Your task to perform on an android device: install app "PlayWell" Image 0: 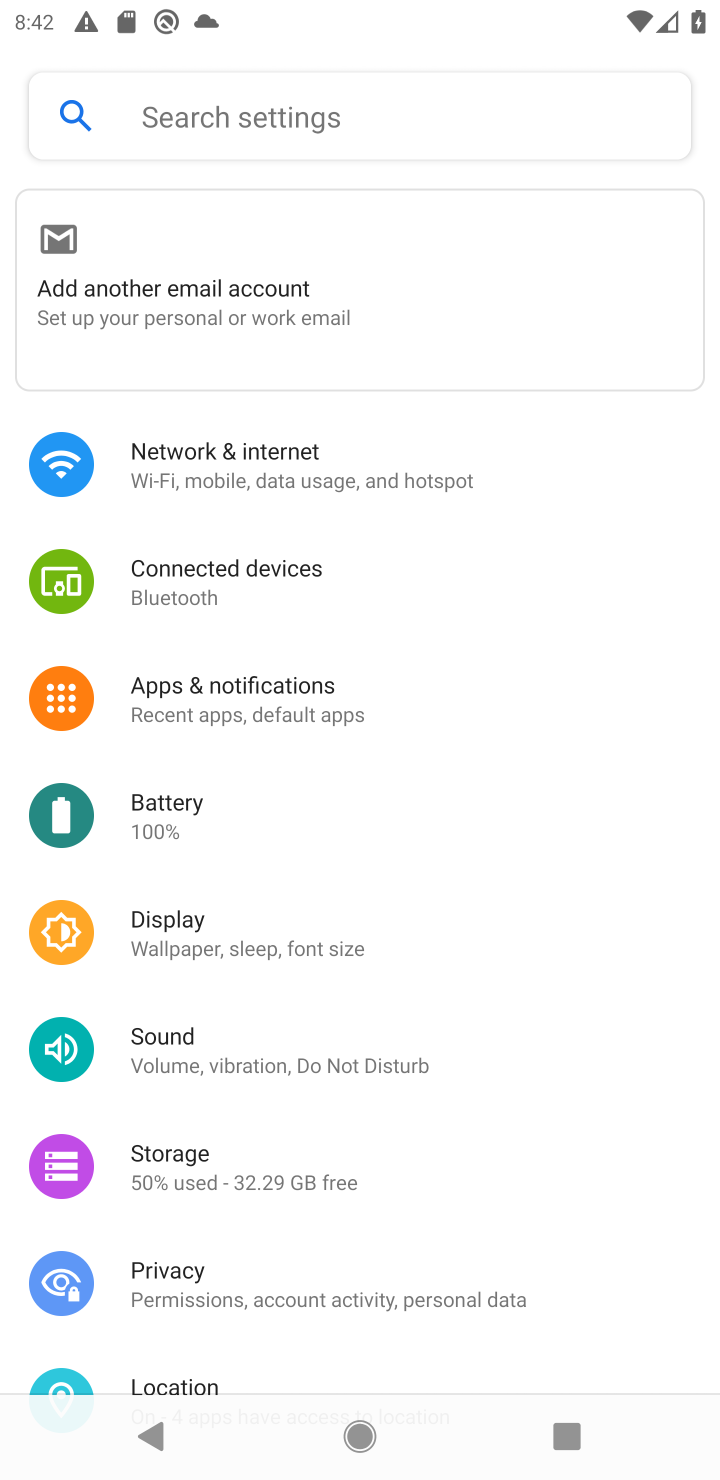
Step 0: press home button
Your task to perform on an android device: install app "PlayWell" Image 1: 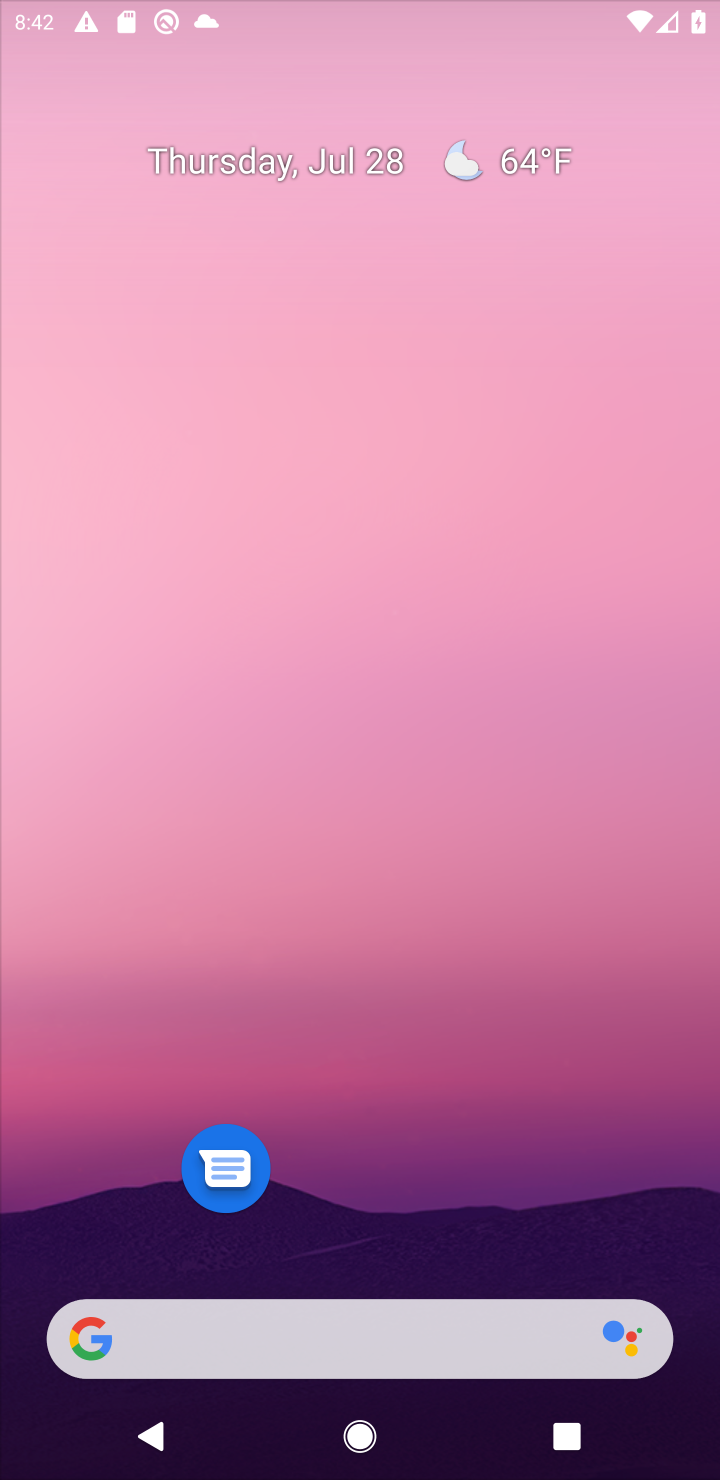
Step 1: drag from (398, 1124) to (715, 386)
Your task to perform on an android device: install app "PlayWell" Image 2: 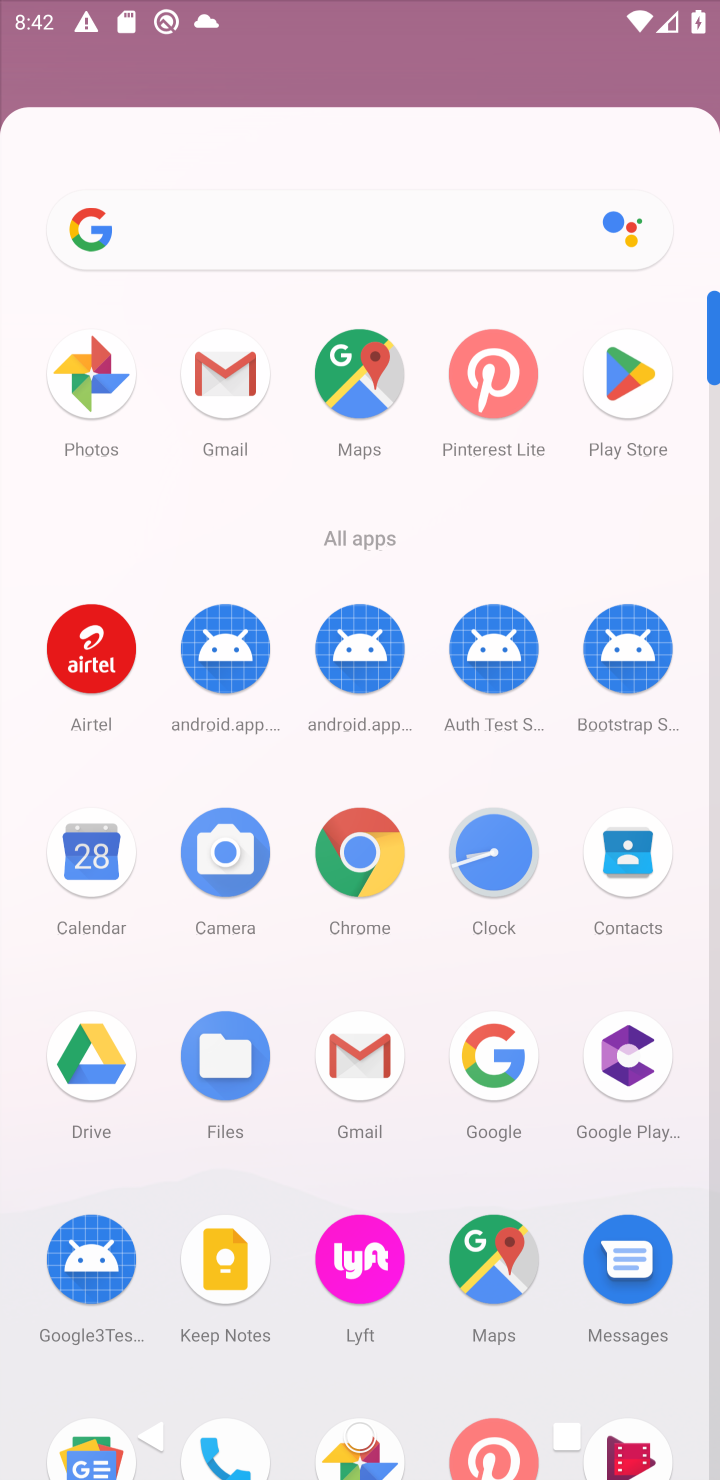
Step 2: click (632, 363)
Your task to perform on an android device: install app "PlayWell" Image 3: 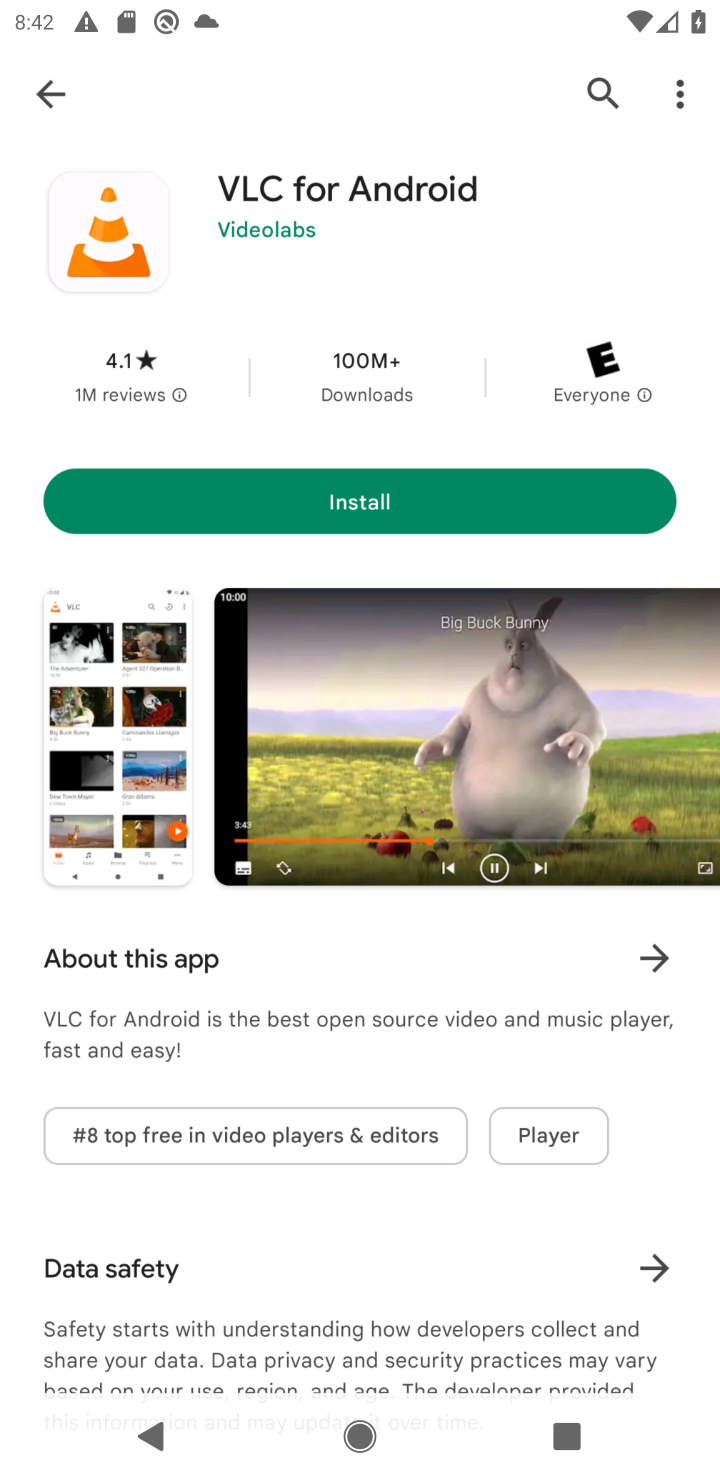
Step 3: click (644, 275)
Your task to perform on an android device: install app "PlayWell" Image 4: 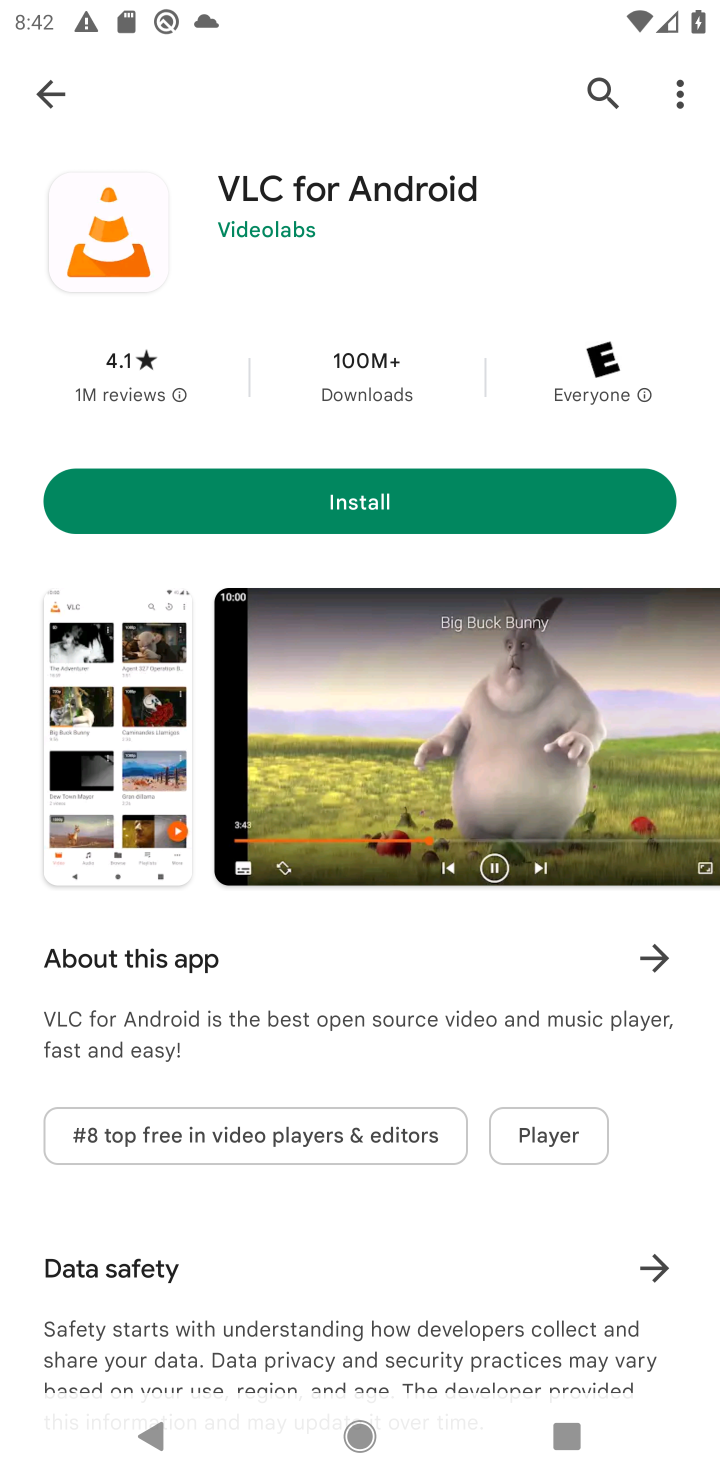
Step 4: click (597, 87)
Your task to perform on an android device: install app "PlayWell" Image 5: 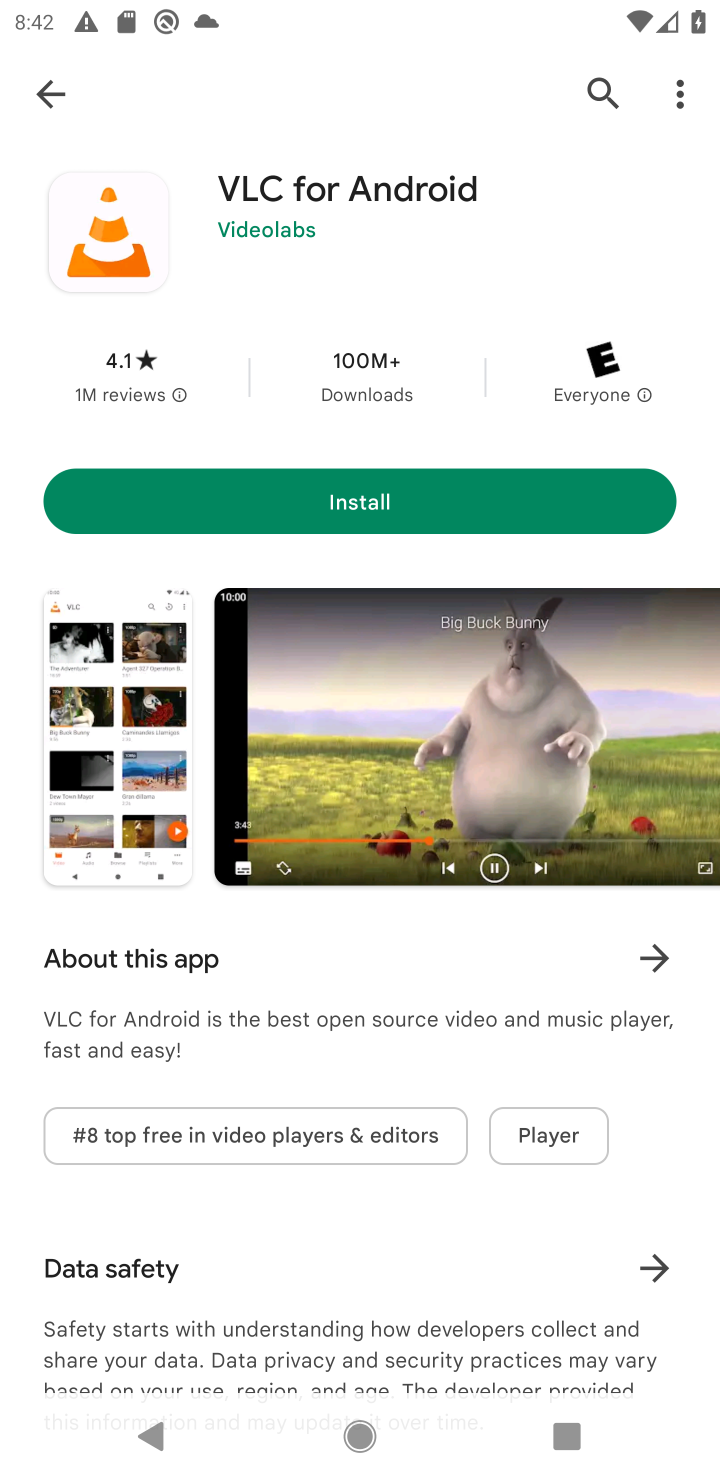
Step 5: click (588, 85)
Your task to perform on an android device: install app "PlayWell" Image 6: 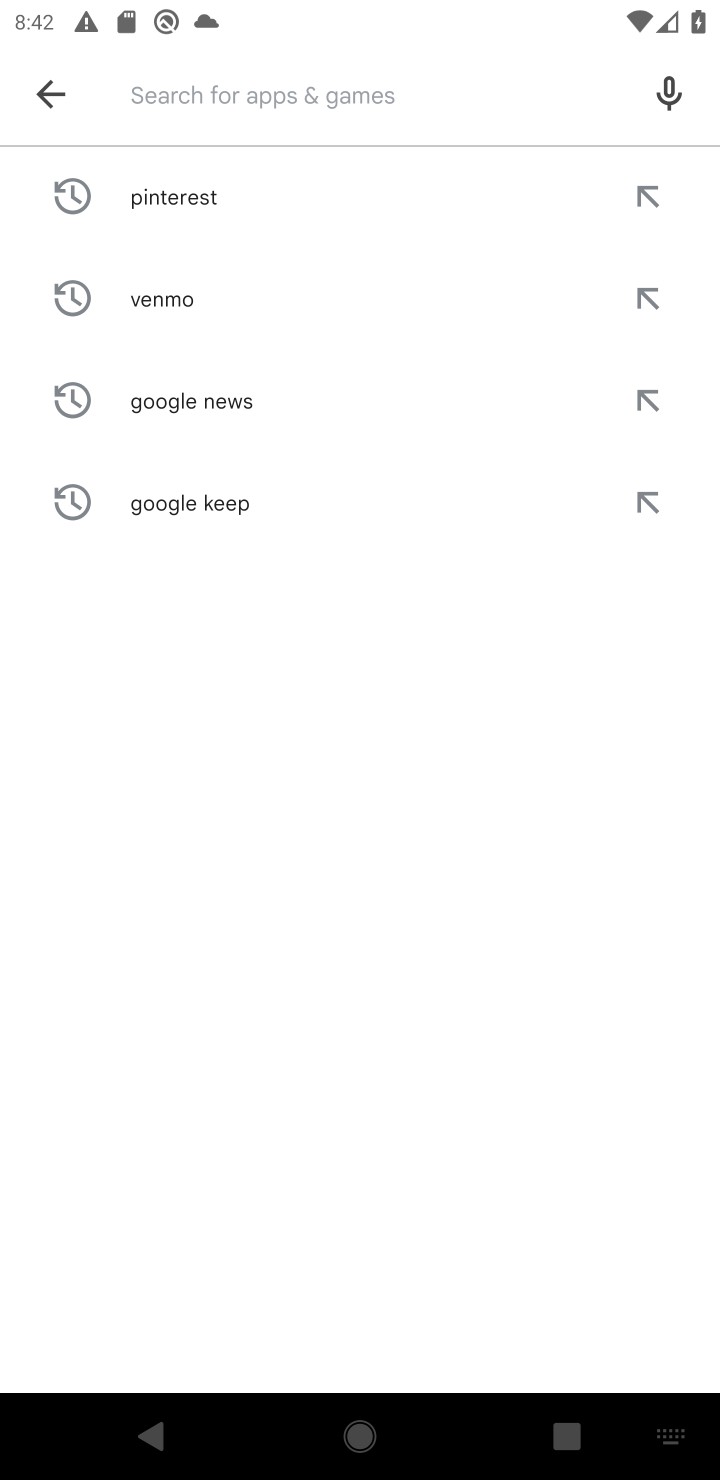
Step 6: type "playwell"
Your task to perform on an android device: install app "PlayWell" Image 7: 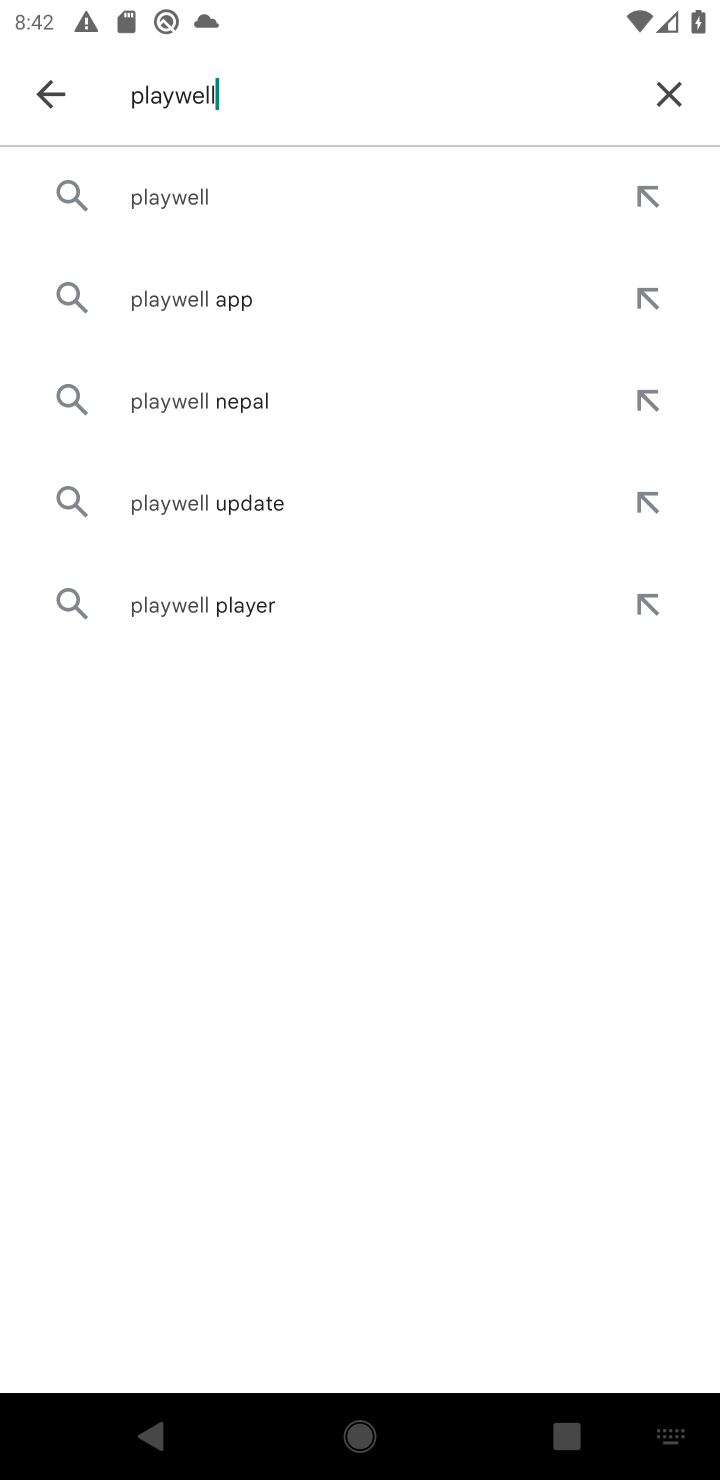
Step 7: click (191, 192)
Your task to perform on an android device: install app "PlayWell" Image 8: 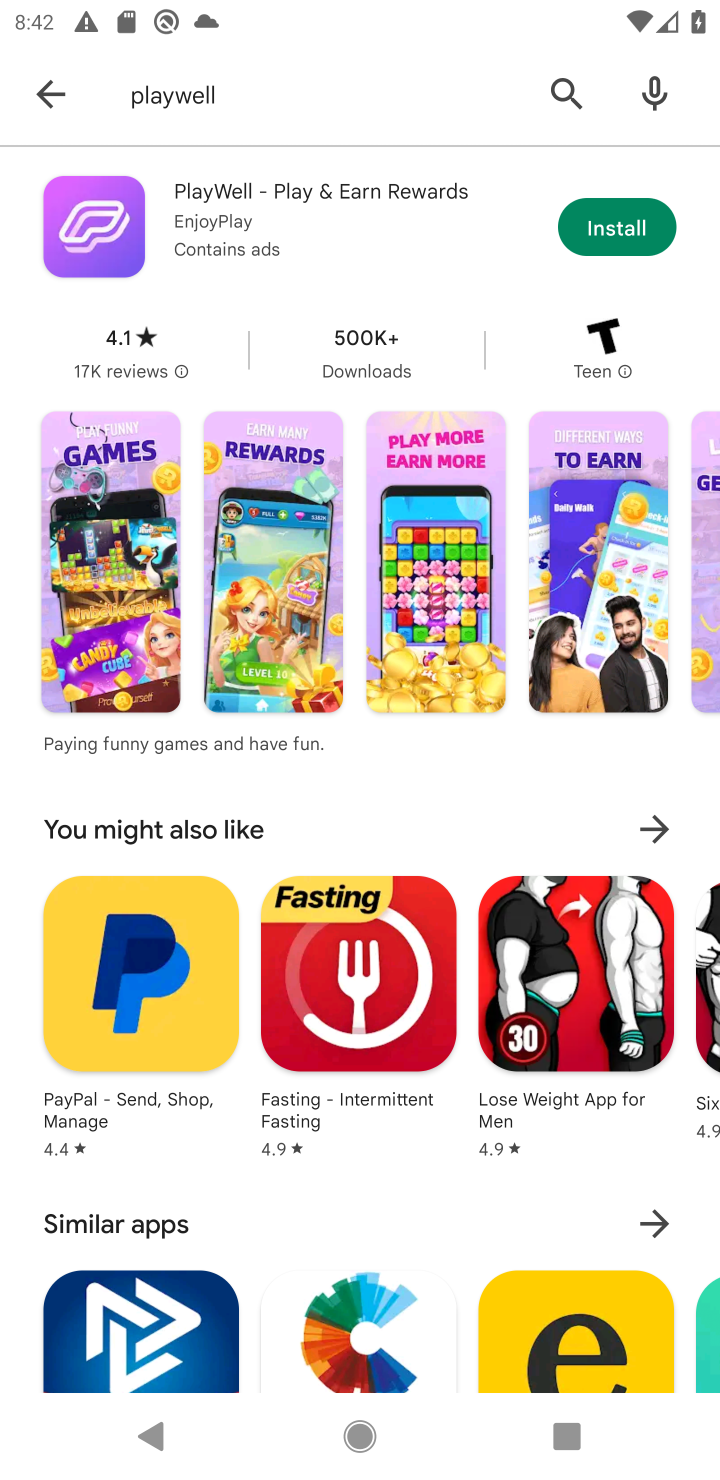
Step 8: click (655, 236)
Your task to perform on an android device: install app "PlayWell" Image 9: 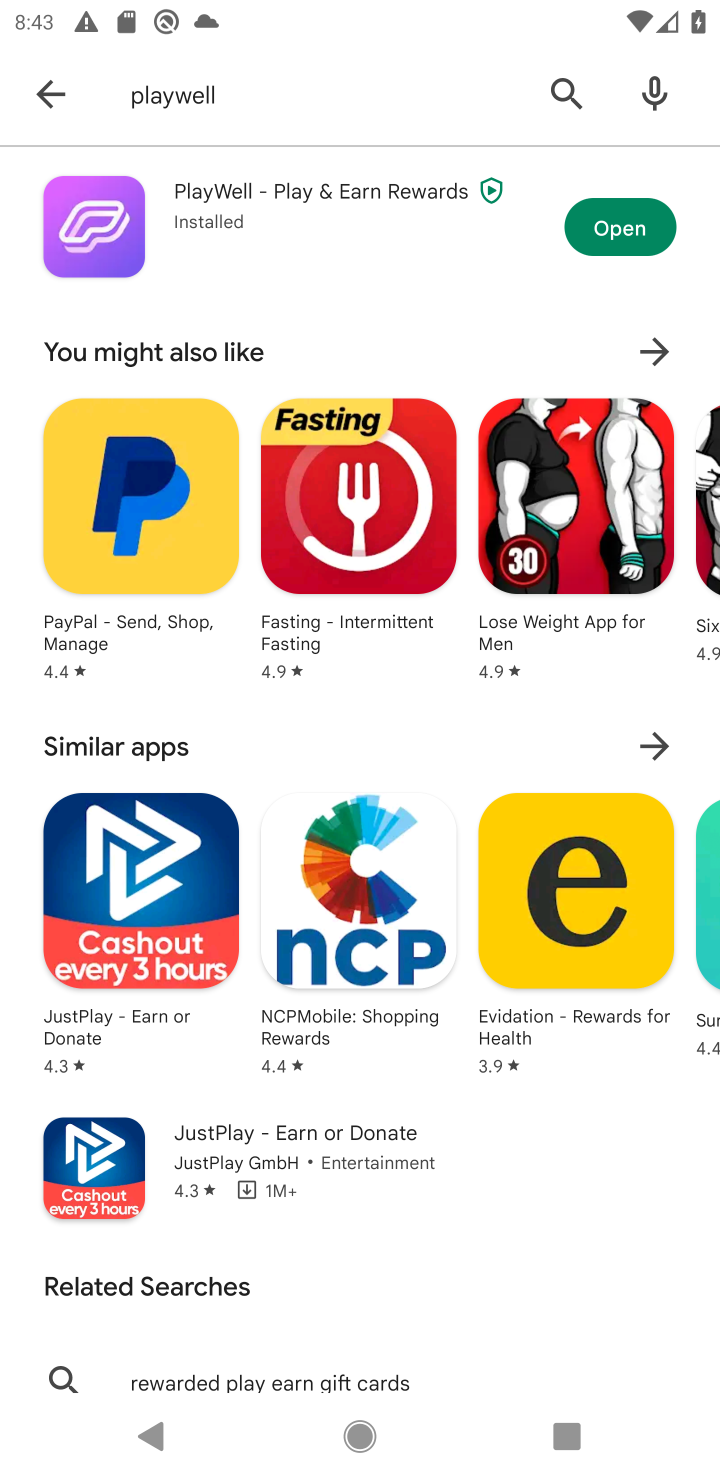
Step 9: task complete